Your task to perform on an android device: turn on airplane mode Image 0: 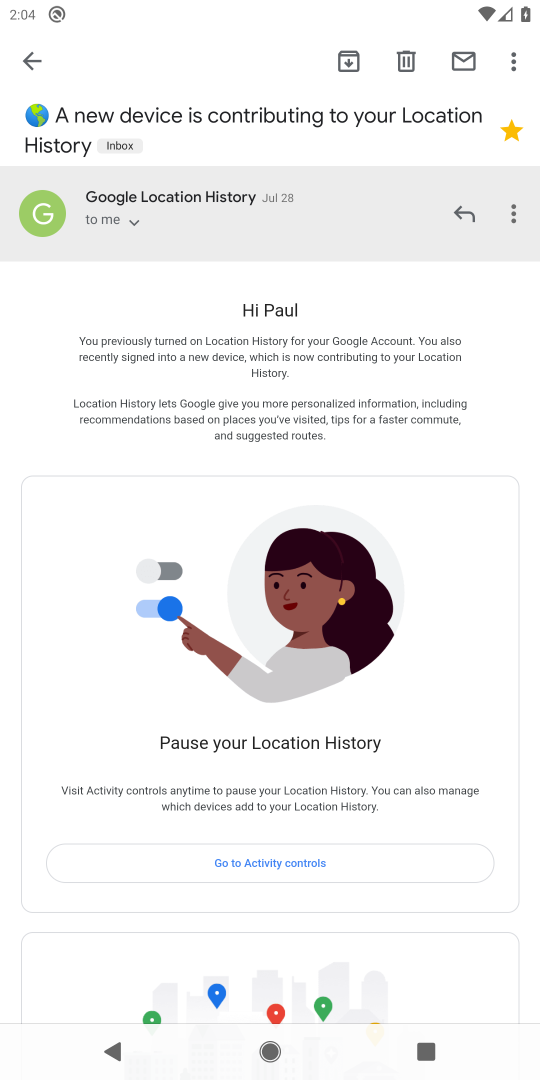
Step 0: press home button
Your task to perform on an android device: turn on airplane mode Image 1: 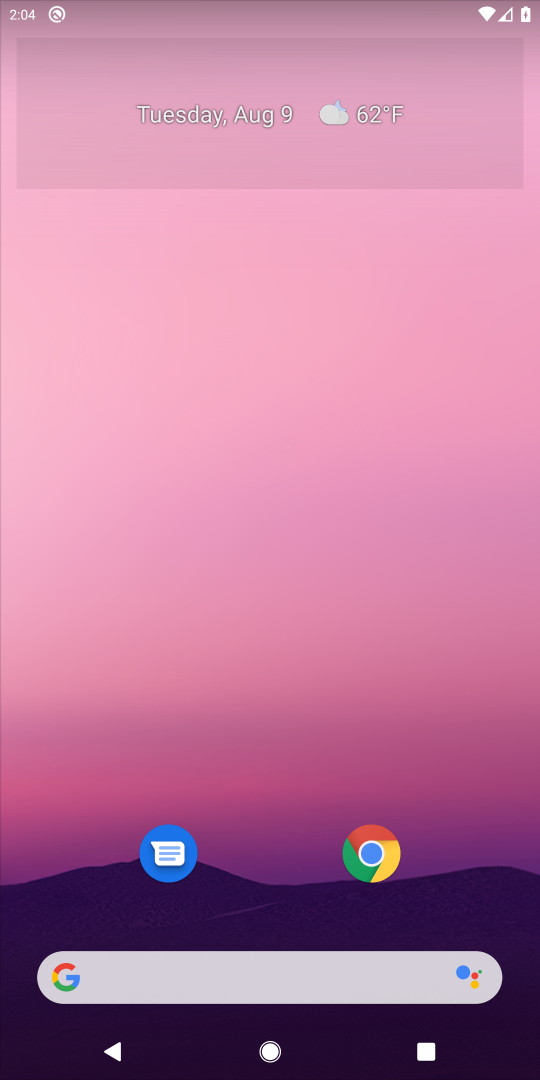
Step 1: drag from (369, 0) to (356, 526)
Your task to perform on an android device: turn on airplane mode Image 2: 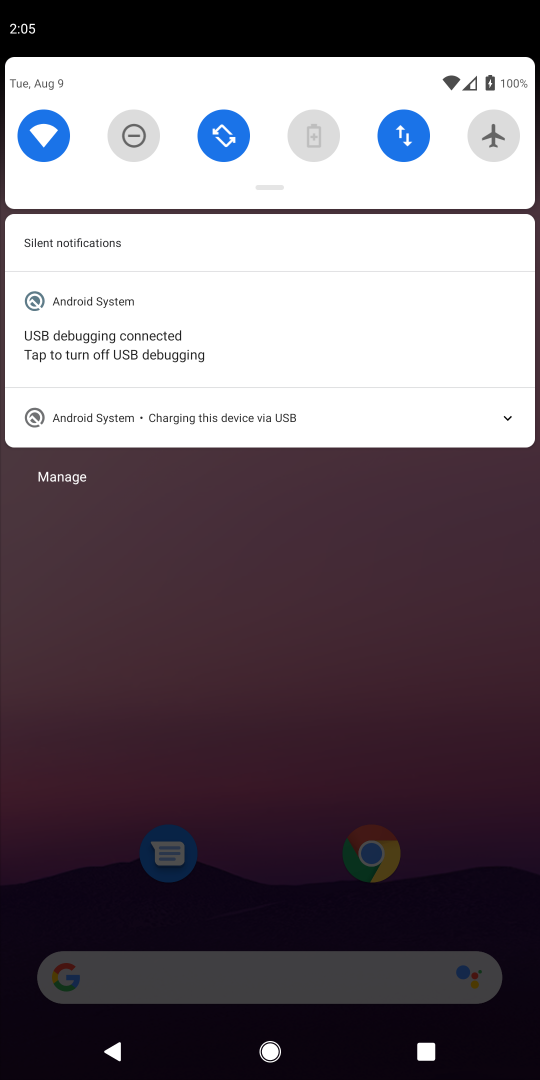
Step 2: click (499, 127)
Your task to perform on an android device: turn on airplane mode Image 3: 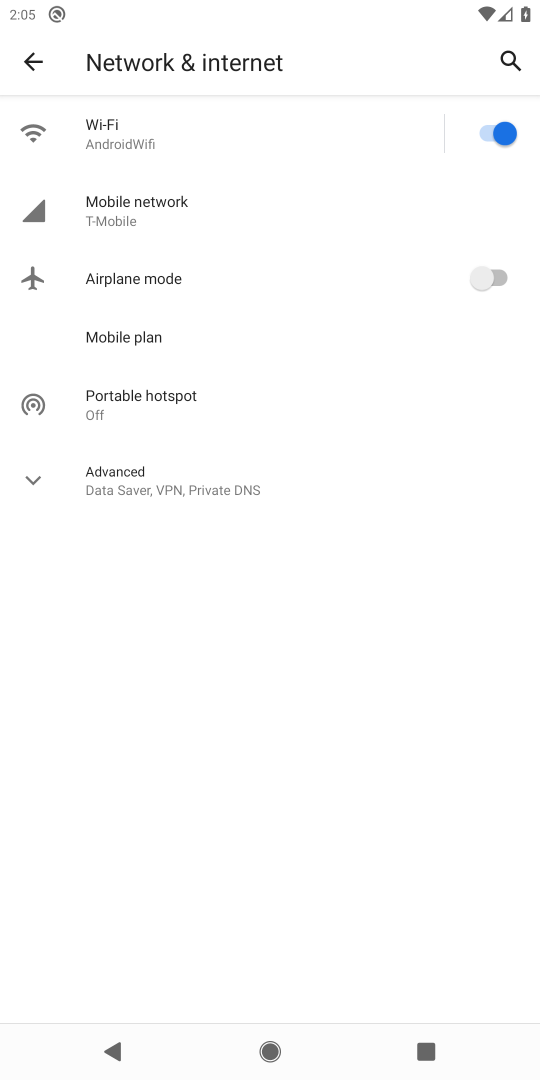
Step 3: drag from (281, 21) to (265, 336)
Your task to perform on an android device: turn on airplane mode Image 4: 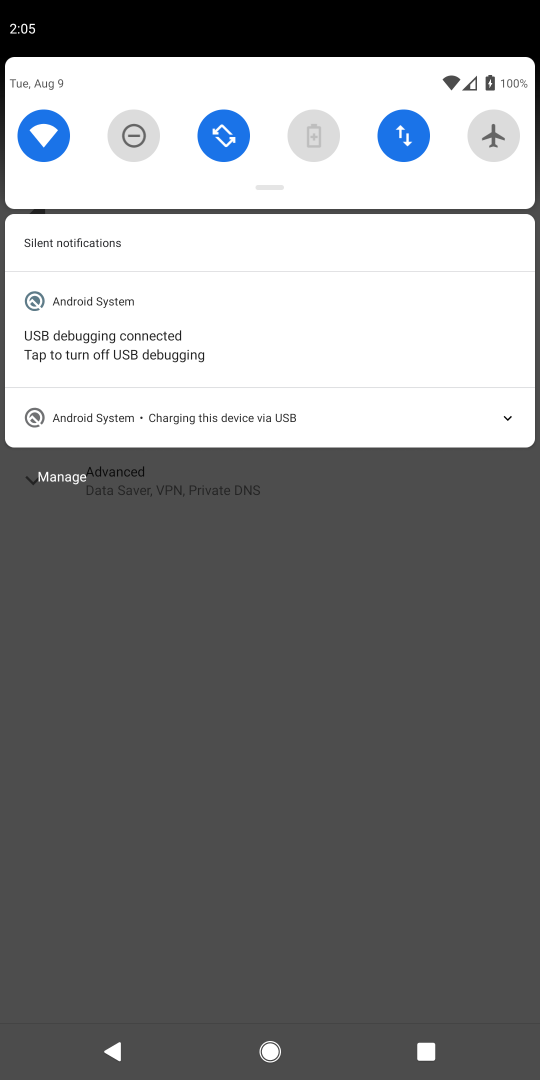
Step 4: click (498, 132)
Your task to perform on an android device: turn on airplane mode Image 5: 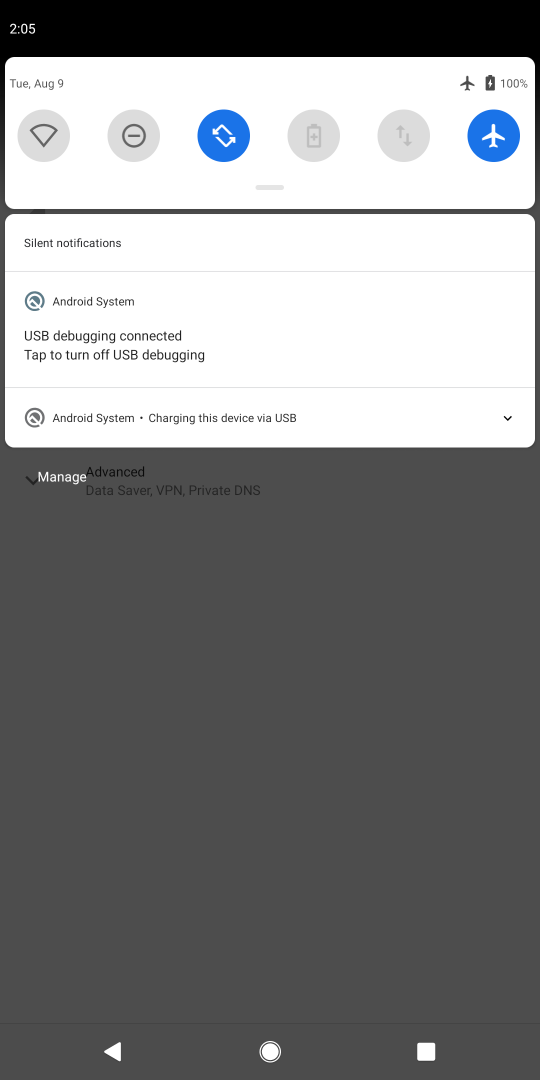
Step 5: task complete